Your task to perform on an android device: open a new tab in the chrome app Image 0: 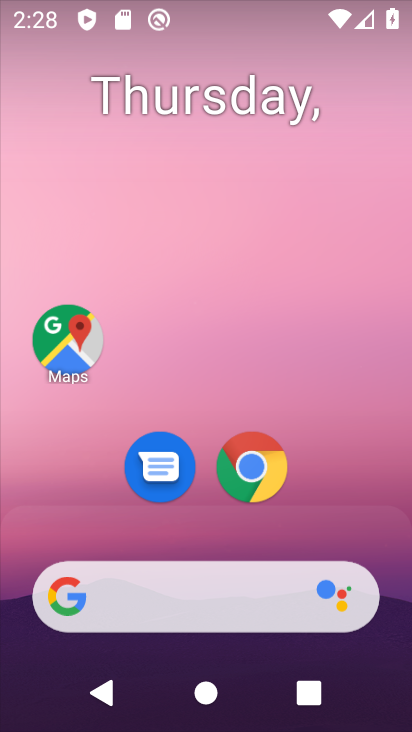
Step 0: click (268, 474)
Your task to perform on an android device: open a new tab in the chrome app Image 1: 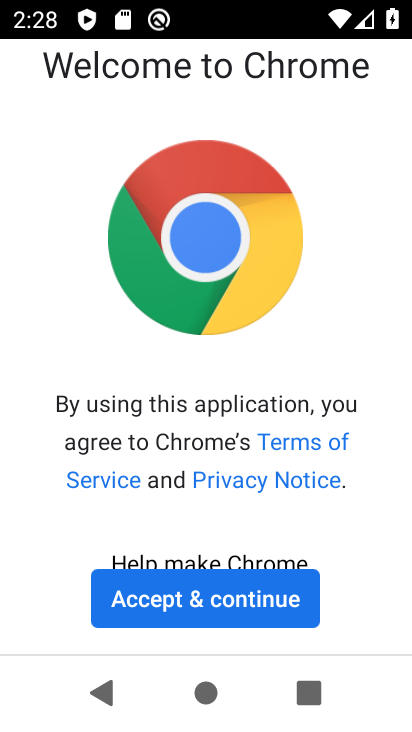
Step 1: click (256, 601)
Your task to perform on an android device: open a new tab in the chrome app Image 2: 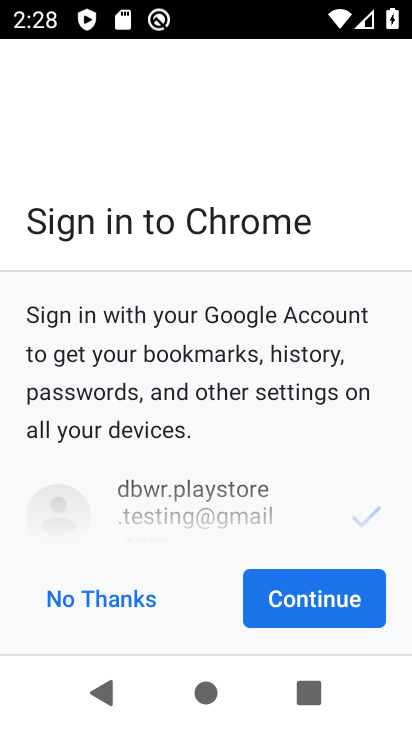
Step 2: click (297, 602)
Your task to perform on an android device: open a new tab in the chrome app Image 3: 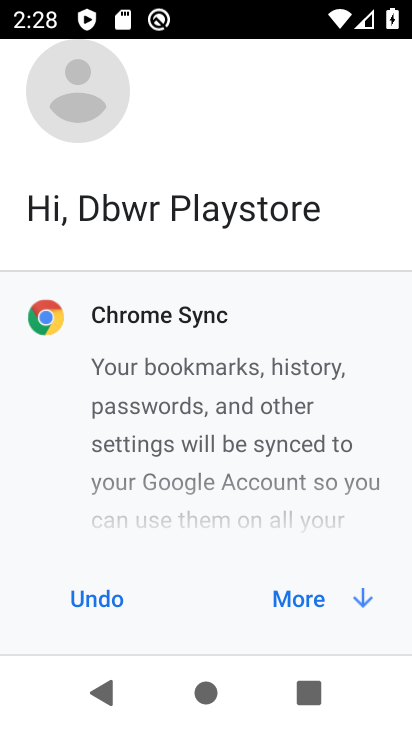
Step 3: click (320, 597)
Your task to perform on an android device: open a new tab in the chrome app Image 4: 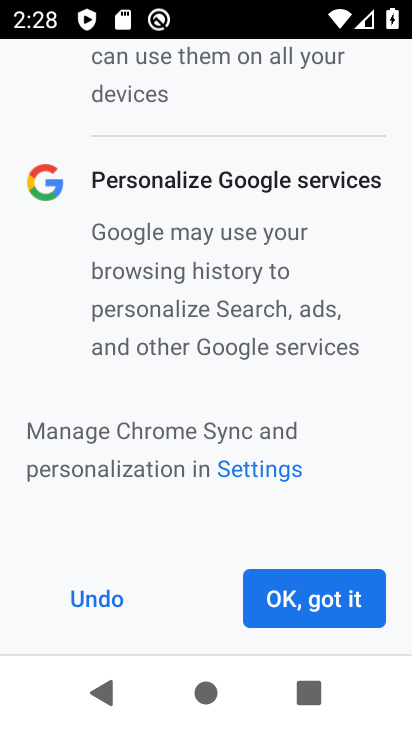
Step 4: click (320, 597)
Your task to perform on an android device: open a new tab in the chrome app Image 5: 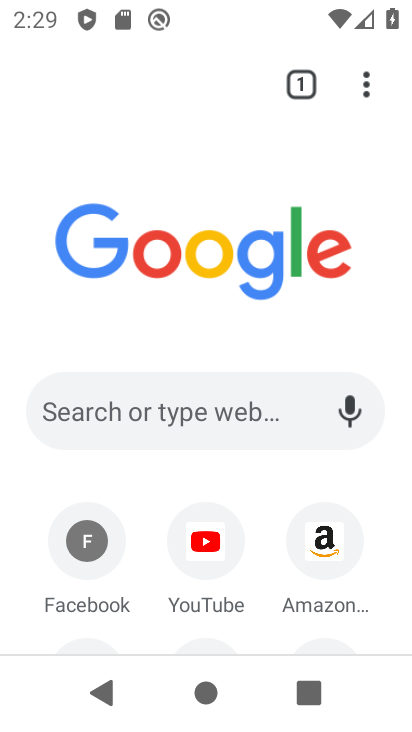
Step 5: click (365, 84)
Your task to perform on an android device: open a new tab in the chrome app Image 6: 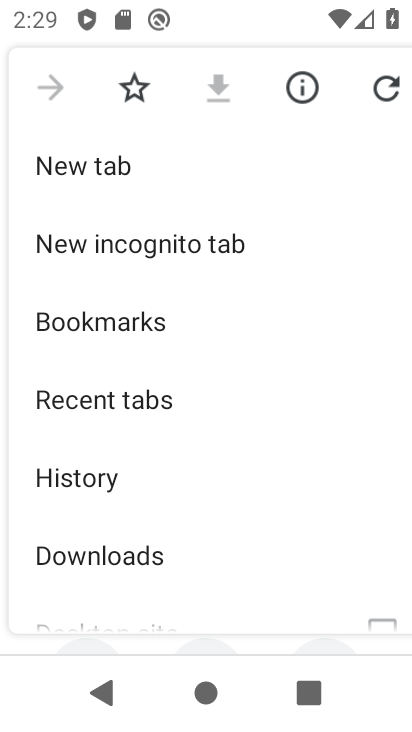
Step 6: click (95, 169)
Your task to perform on an android device: open a new tab in the chrome app Image 7: 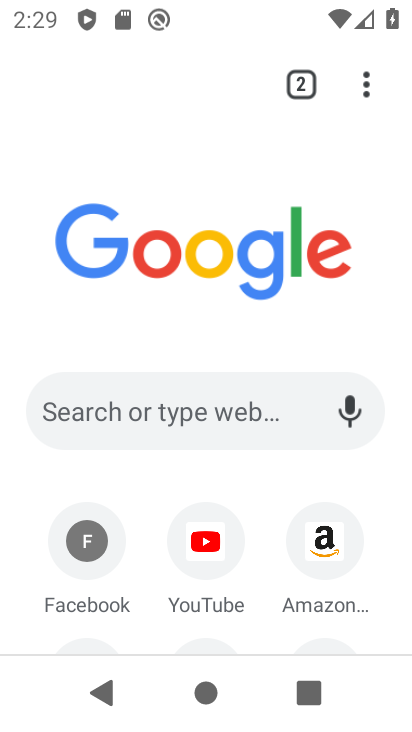
Step 7: task complete